Your task to perform on an android device: Open Amazon Image 0: 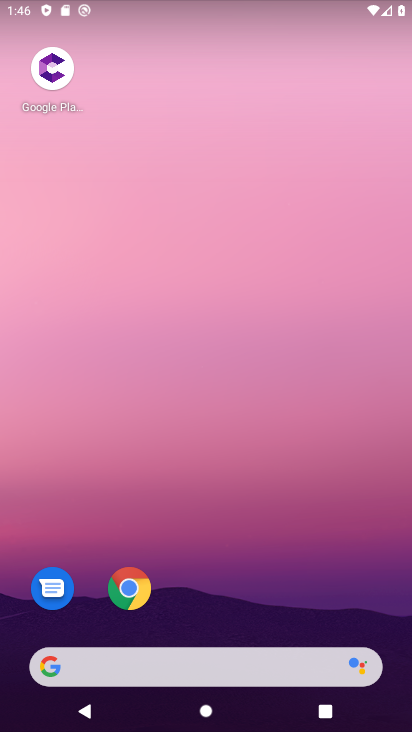
Step 0: drag from (327, 628) to (238, 299)
Your task to perform on an android device: Open Amazon Image 1: 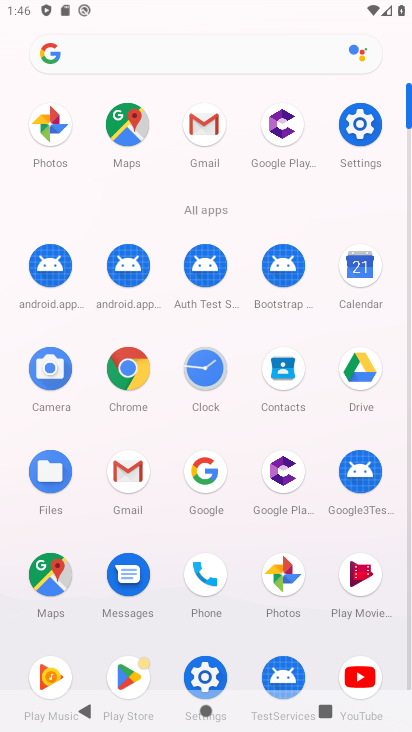
Step 1: click (127, 383)
Your task to perform on an android device: Open Amazon Image 2: 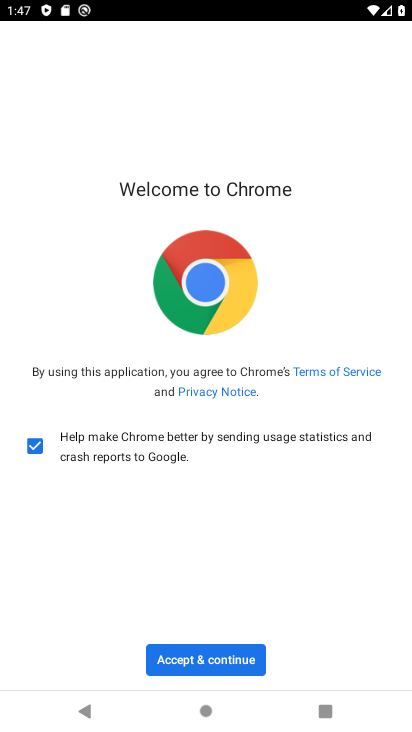
Step 2: click (217, 664)
Your task to perform on an android device: Open Amazon Image 3: 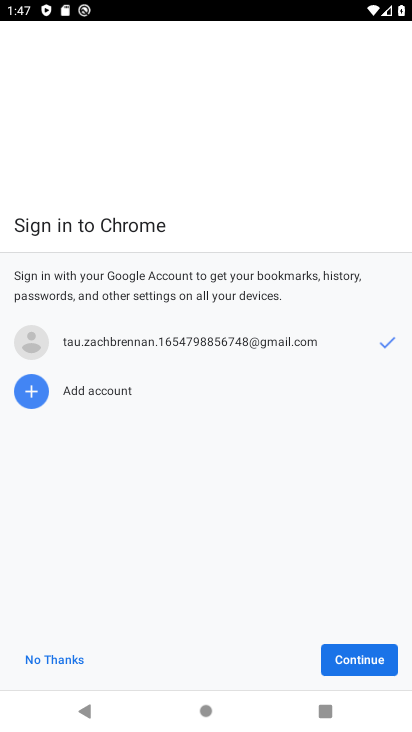
Step 3: click (376, 664)
Your task to perform on an android device: Open Amazon Image 4: 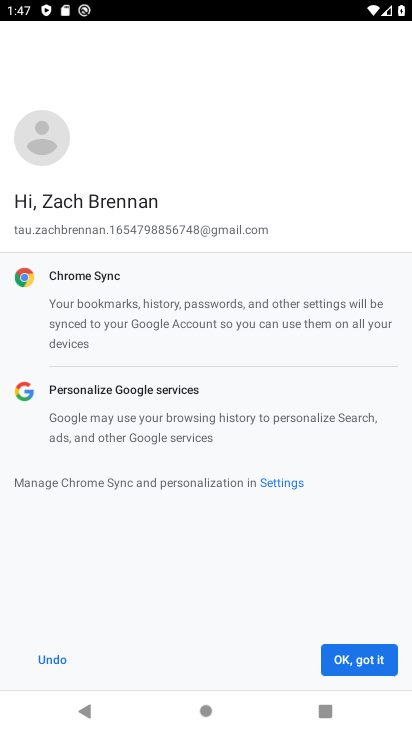
Step 4: click (396, 640)
Your task to perform on an android device: Open Amazon Image 5: 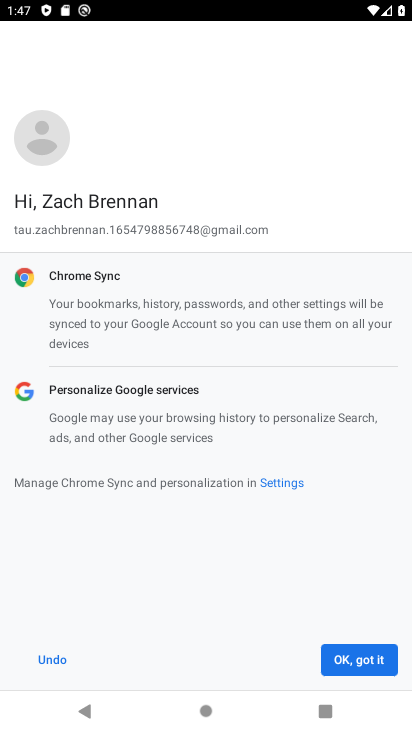
Step 5: click (382, 648)
Your task to perform on an android device: Open Amazon Image 6: 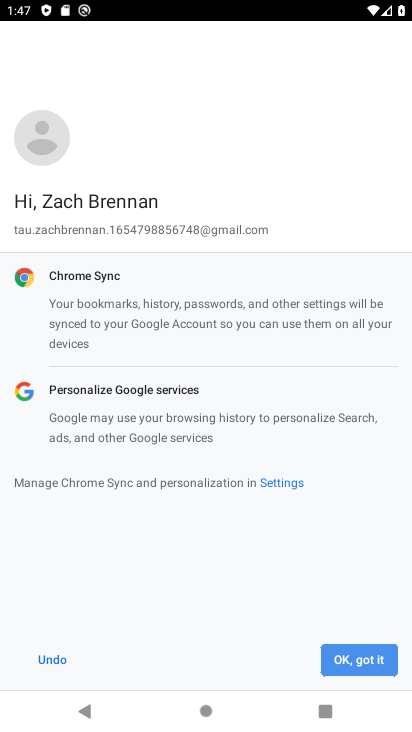
Step 6: click (382, 648)
Your task to perform on an android device: Open Amazon Image 7: 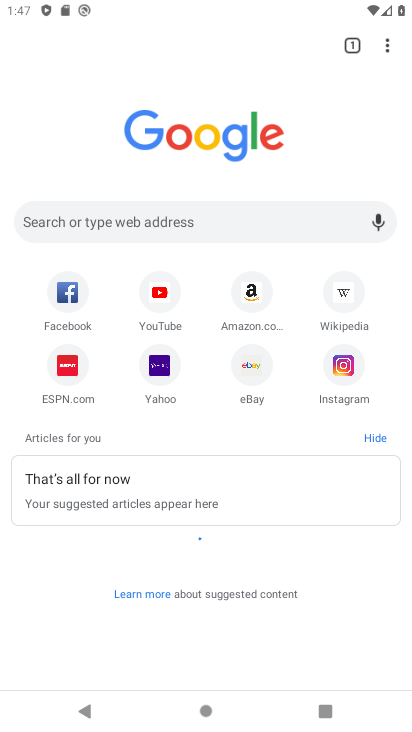
Step 7: click (253, 322)
Your task to perform on an android device: Open Amazon Image 8: 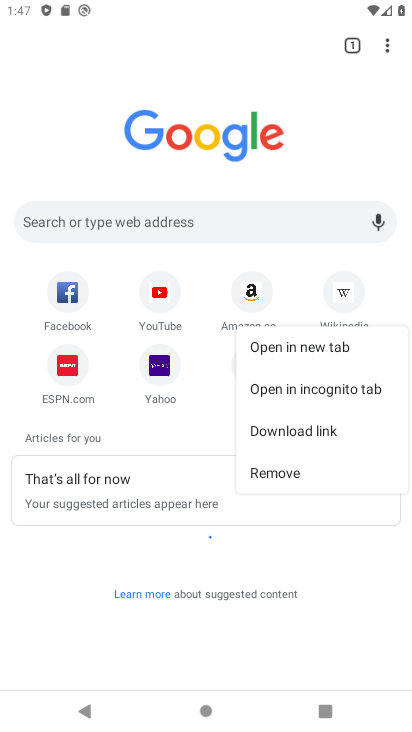
Step 8: click (270, 285)
Your task to perform on an android device: Open Amazon Image 9: 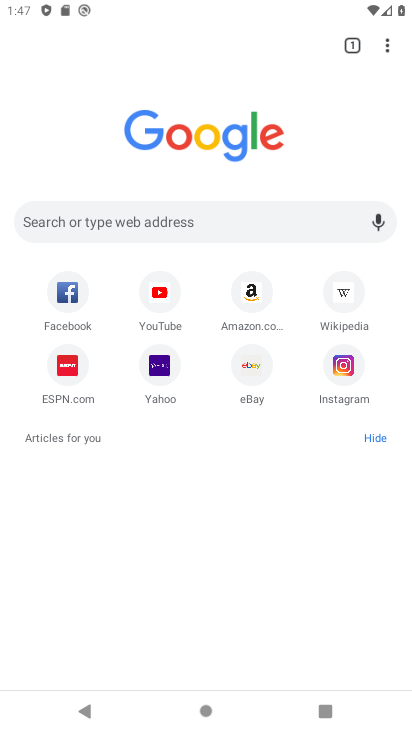
Step 9: click (243, 301)
Your task to perform on an android device: Open Amazon Image 10: 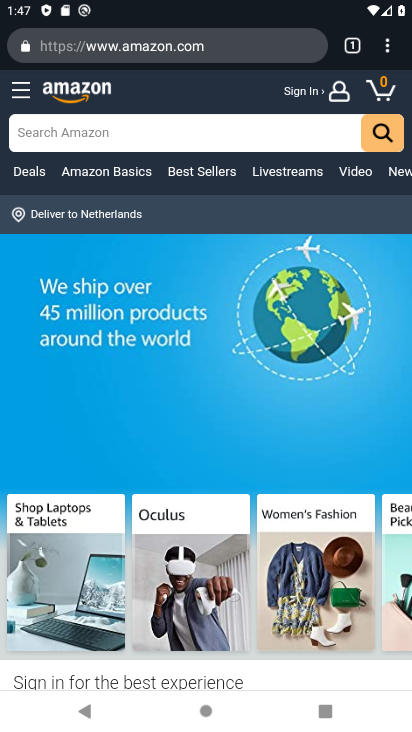
Step 10: task complete